Your task to perform on an android device: check battery use Image 0: 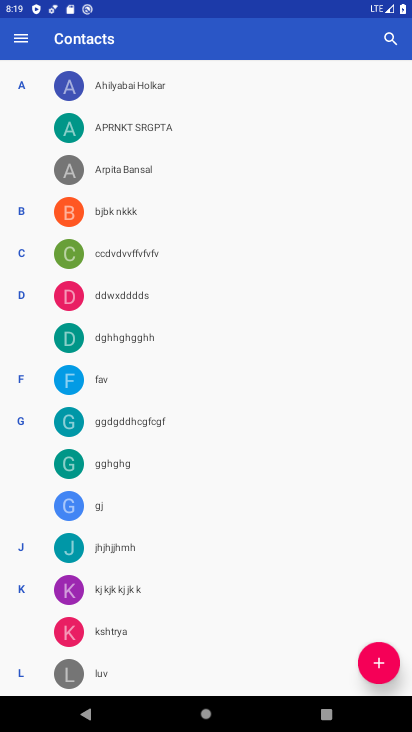
Step 0: press home button
Your task to perform on an android device: check battery use Image 1: 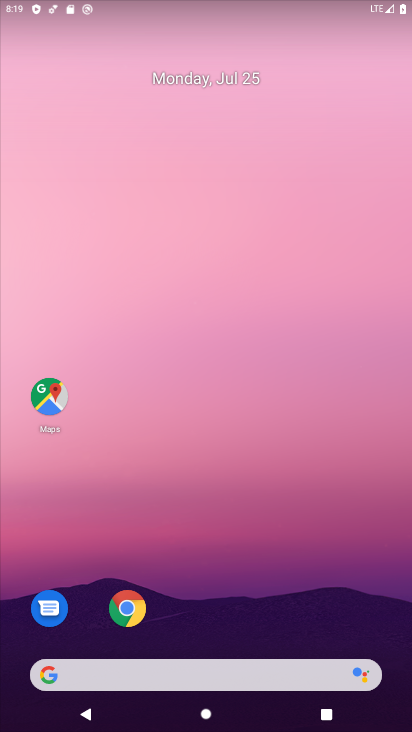
Step 1: drag from (232, 620) to (231, 58)
Your task to perform on an android device: check battery use Image 2: 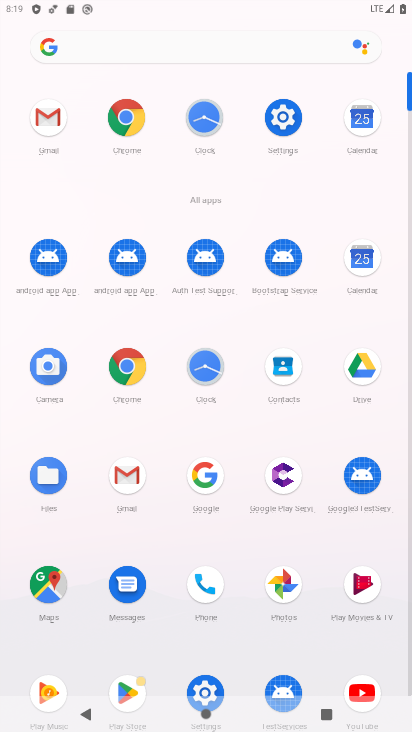
Step 2: click (289, 119)
Your task to perform on an android device: check battery use Image 3: 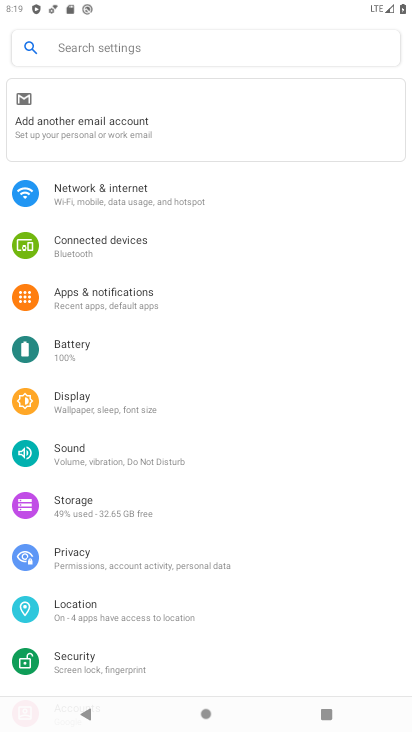
Step 3: click (65, 350)
Your task to perform on an android device: check battery use Image 4: 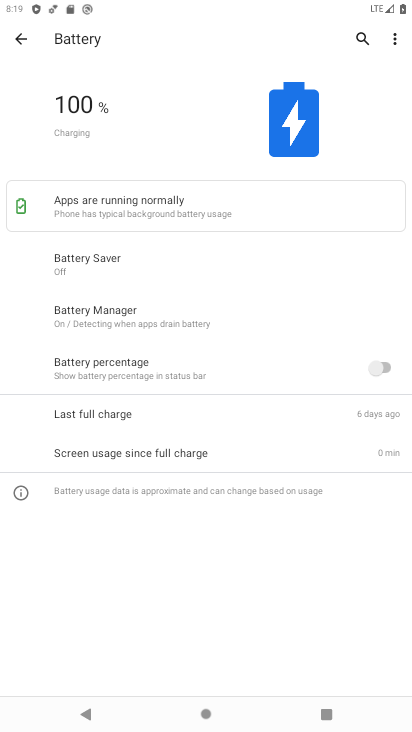
Step 4: click (397, 41)
Your task to perform on an android device: check battery use Image 5: 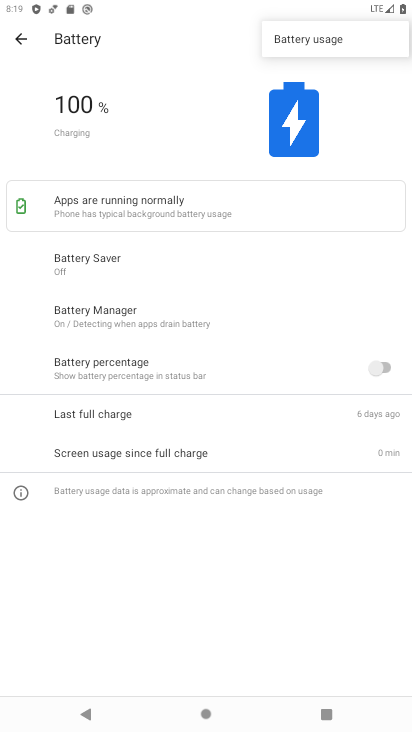
Step 5: click (333, 38)
Your task to perform on an android device: check battery use Image 6: 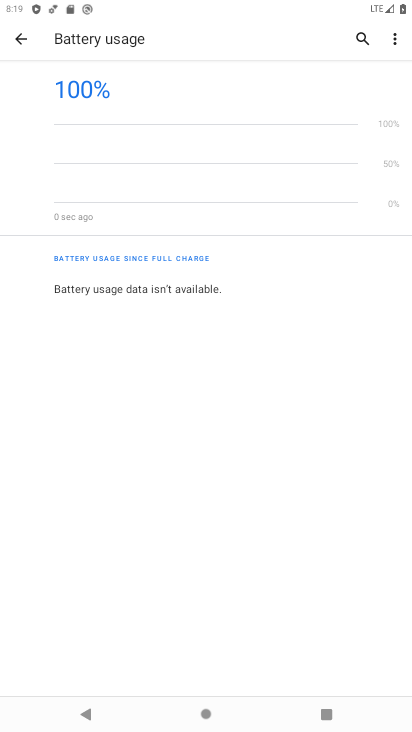
Step 6: task complete